Your task to perform on an android device: Open Maps and search for coffee Image 0: 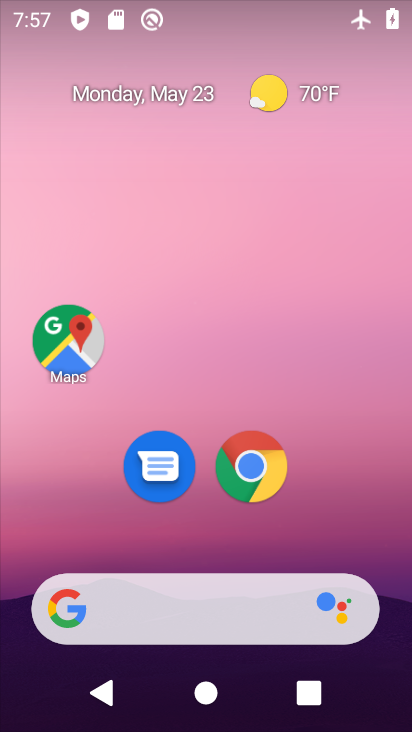
Step 0: click (274, 85)
Your task to perform on an android device: Open Maps and search for coffee Image 1: 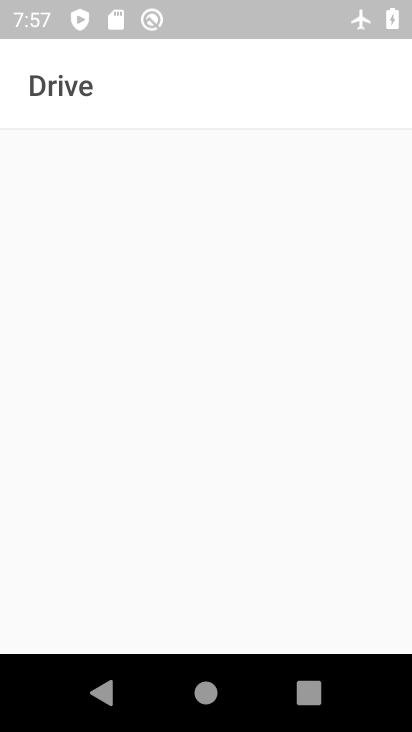
Step 1: press home button
Your task to perform on an android device: Open Maps and search for coffee Image 2: 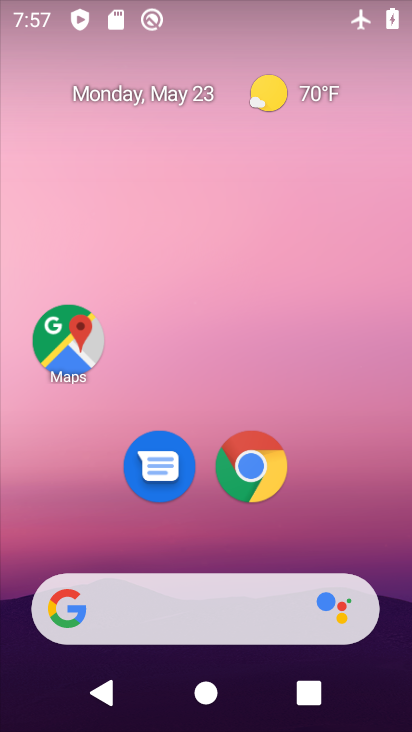
Step 2: drag from (214, 637) to (217, 111)
Your task to perform on an android device: Open Maps and search for coffee Image 3: 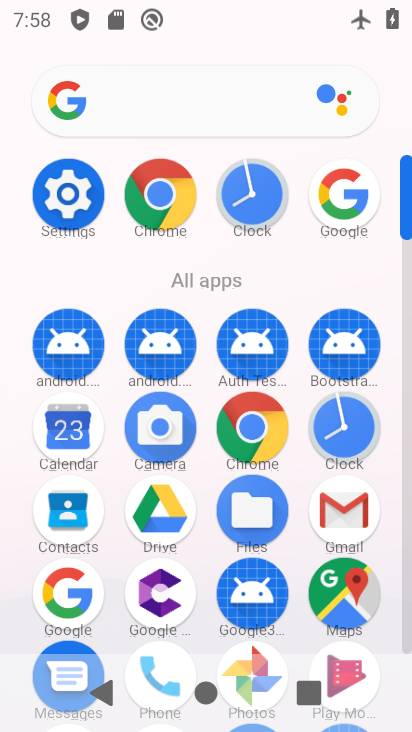
Step 3: click (349, 586)
Your task to perform on an android device: Open Maps and search for coffee Image 4: 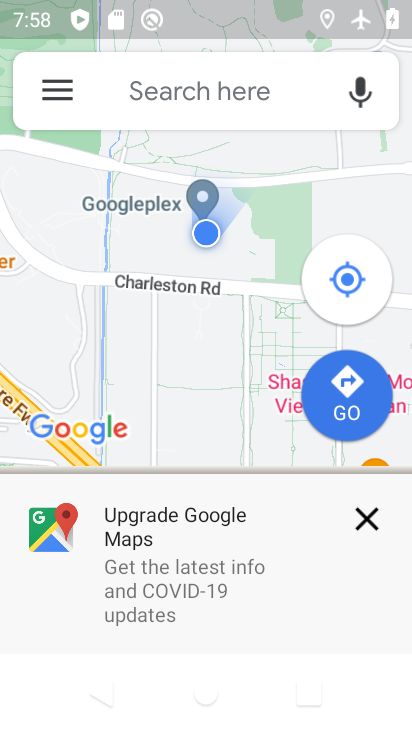
Step 4: click (207, 115)
Your task to perform on an android device: Open Maps and search for coffee Image 5: 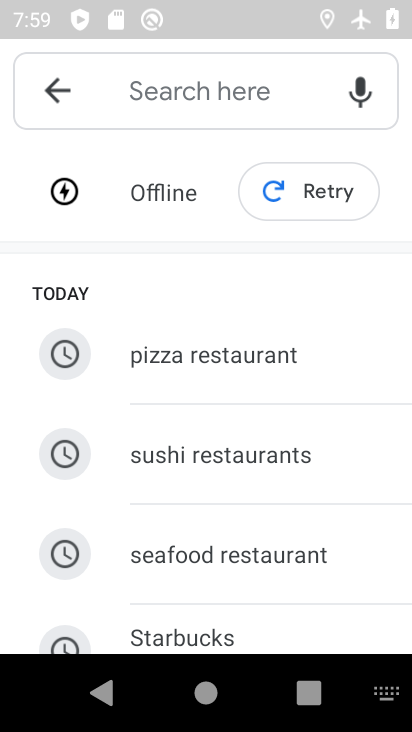
Step 5: type "maps"
Your task to perform on an android device: Open Maps and search for coffee Image 6: 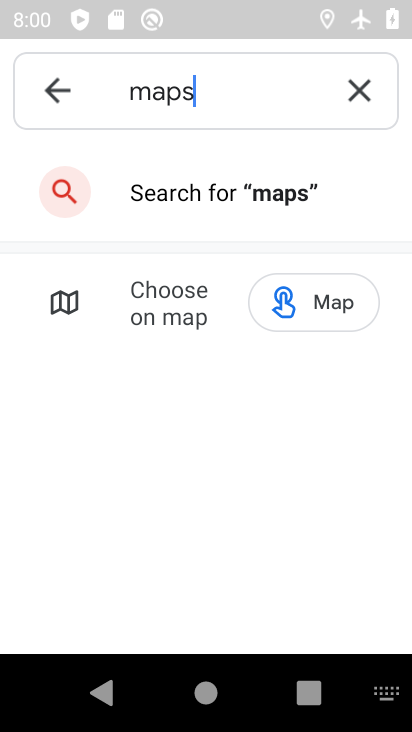
Step 6: task complete